Your task to perform on an android device: Go to battery settings Image 0: 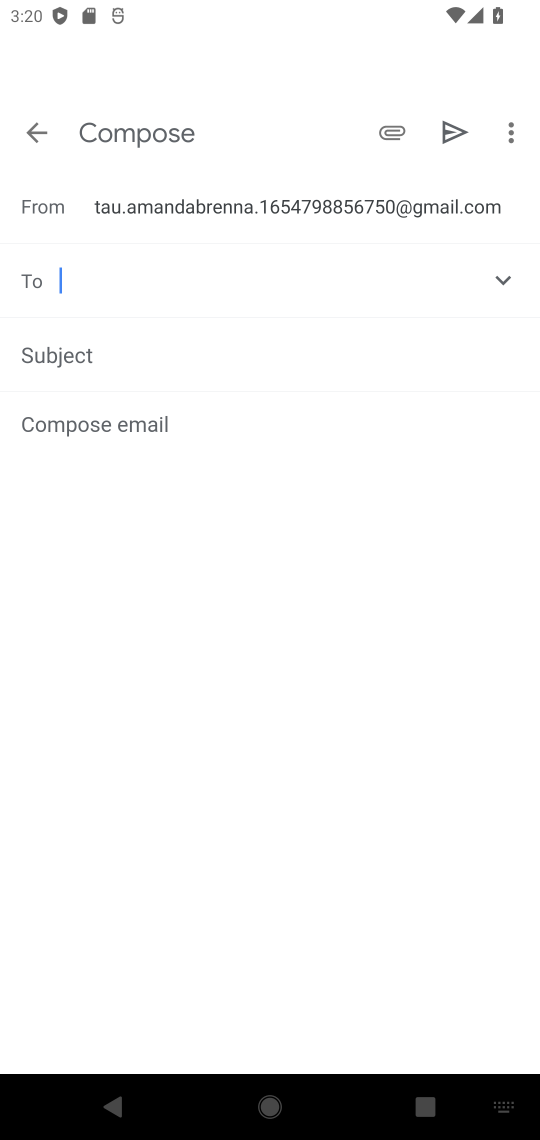
Step 0: press home button
Your task to perform on an android device: Go to battery settings Image 1: 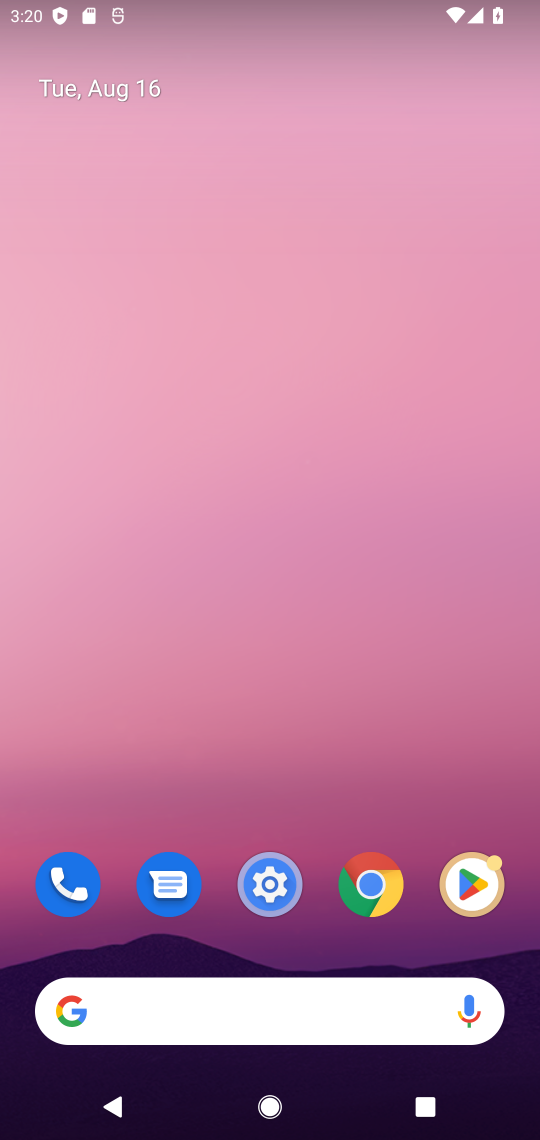
Step 1: click (433, 554)
Your task to perform on an android device: Go to battery settings Image 2: 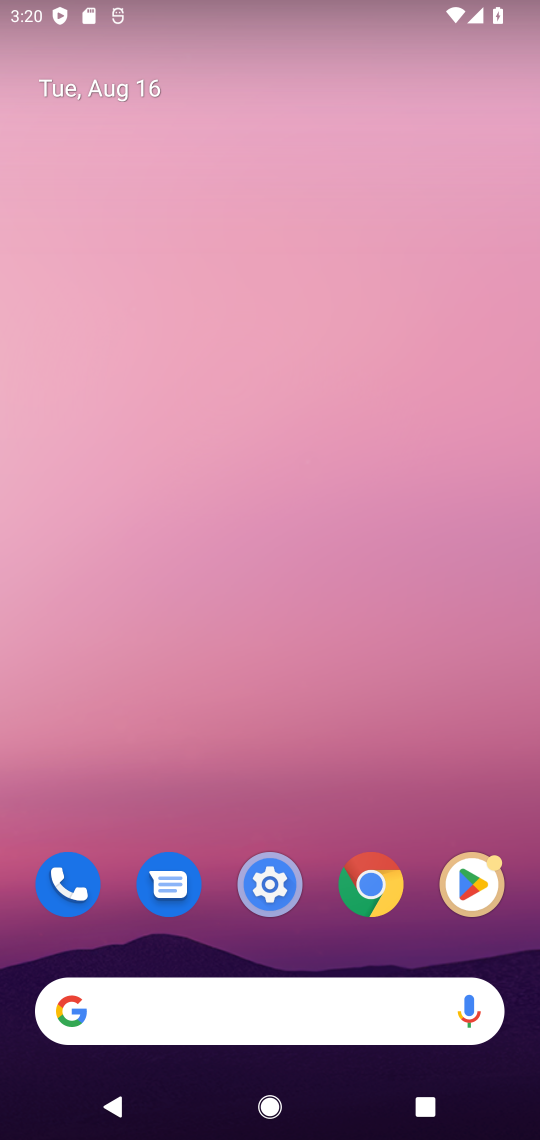
Step 2: click (267, 894)
Your task to perform on an android device: Go to battery settings Image 3: 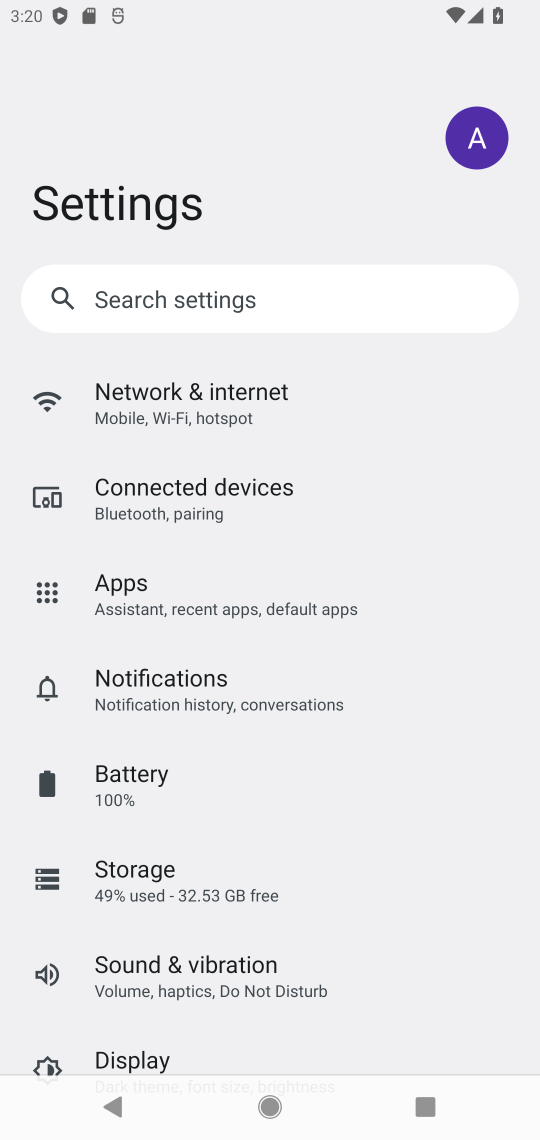
Step 3: click (145, 796)
Your task to perform on an android device: Go to battery settings Image 4: 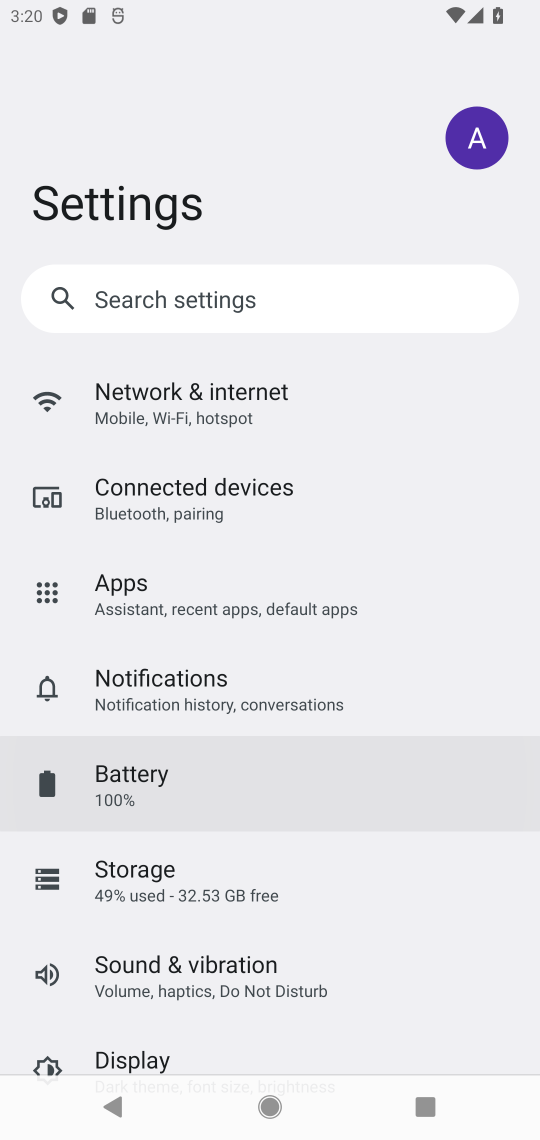
Step 4: click (123, 786)
Your task to perform on an android device: Go to battery settings Image 5: 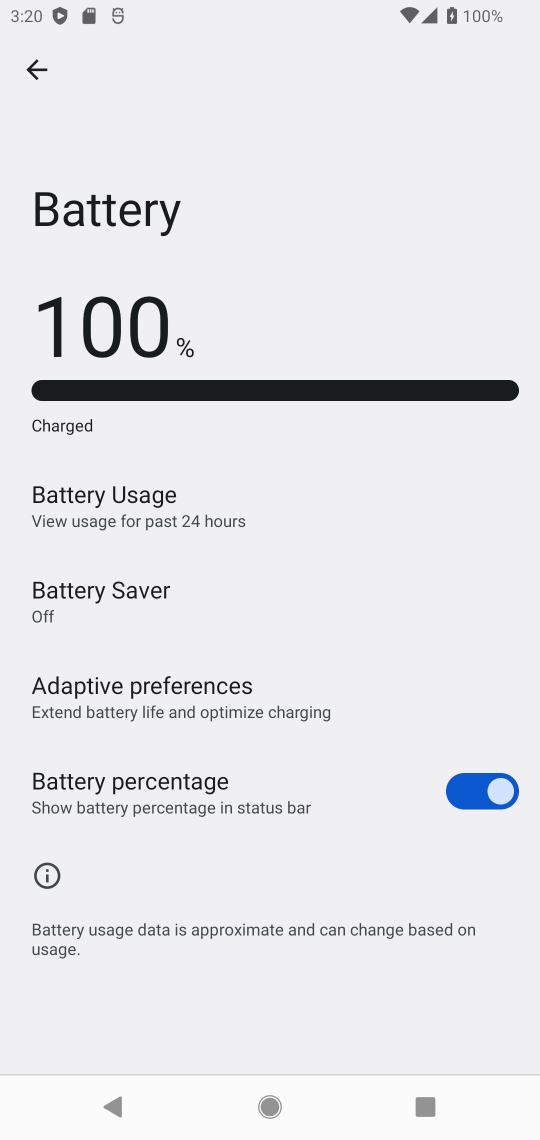
Step 5: task complete